Your task to perform on an android device: Open maps Image 0: 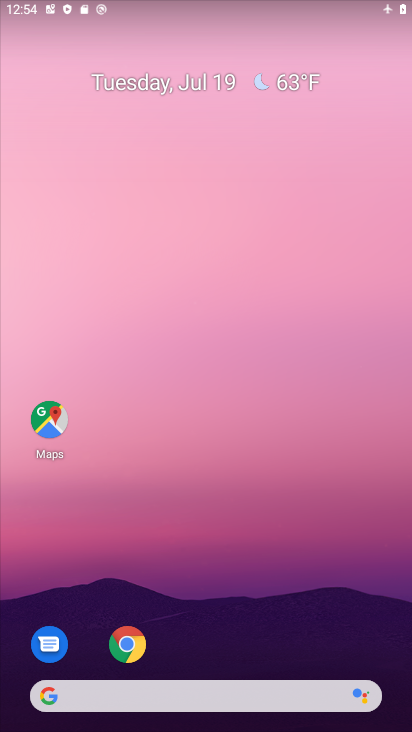
Step 0: drag from (205, 727) to (227, 152)
Your task to perform on an android device: Open maps Image 1: 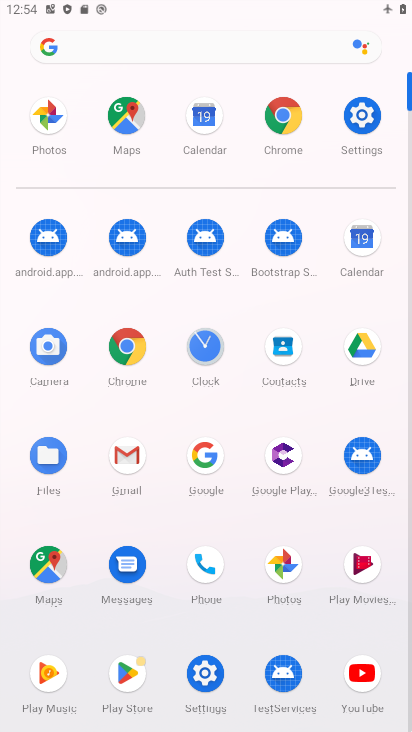
Step 1: click (52, 556)
Your task to perform on an android device: Open maps Image 2: 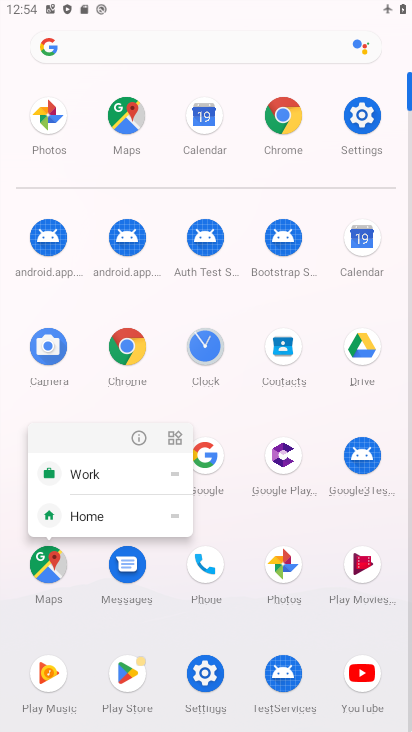
Step 2: click (50, 557)
Your task to perform on an android device: Open maps Image 3: 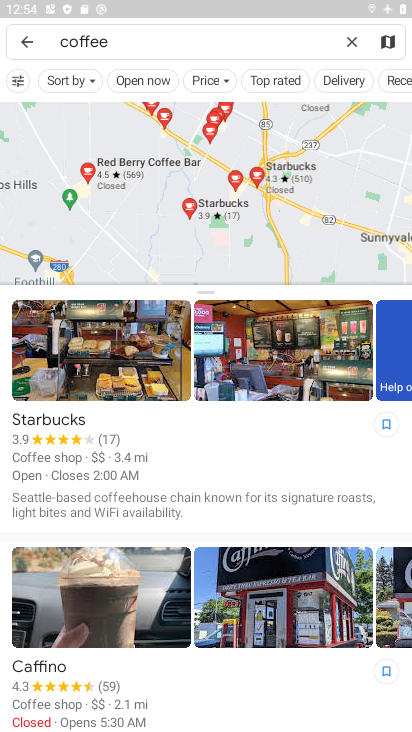
Step 3: task complete